Your task to perform on an android device: turn smart compose on in the gmail app Image 0: 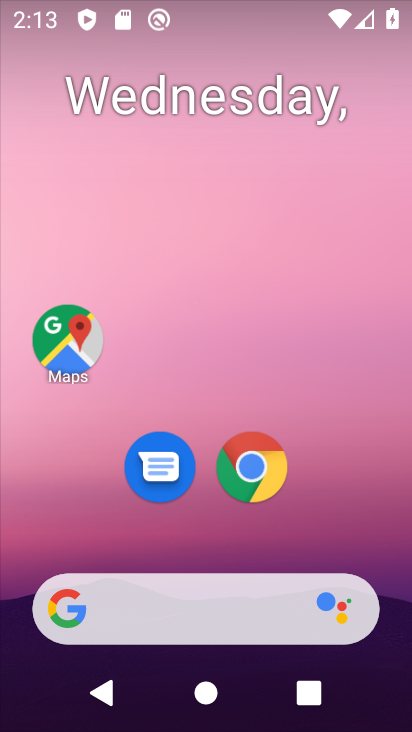
Step 0: press home button
Your task to perform on an android device: turn smart compose on in the gmail app Image 1: 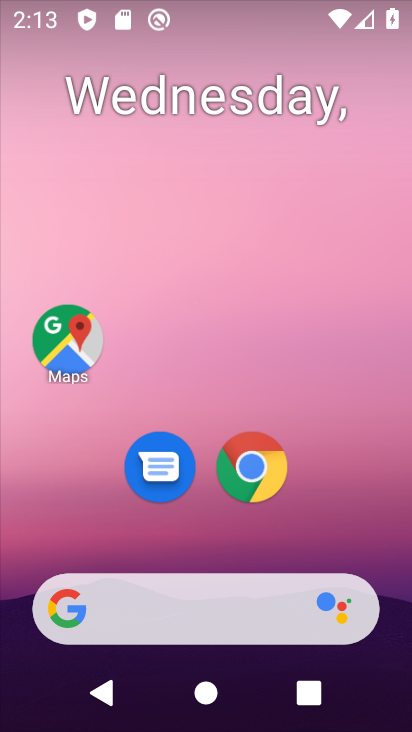
Step 1: drag from (200, 618) to (296, 117)
Your task to perform on an android device: turn smart compose on in the gmail app Image 2: 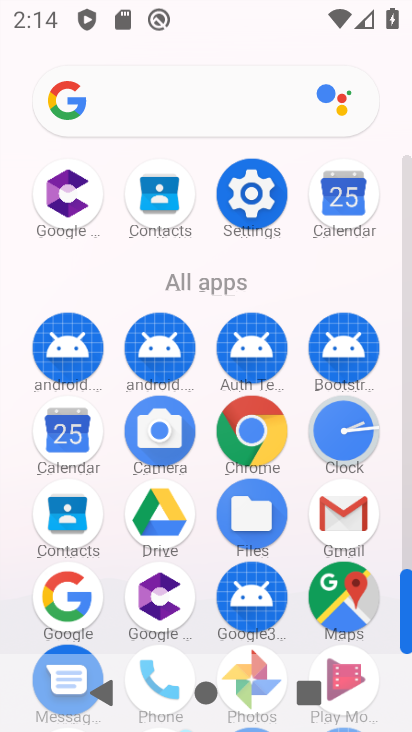
Step 2: click (349, 521)
Your task to perform on an android device: turn smart compose on in the gmail app Image 3: 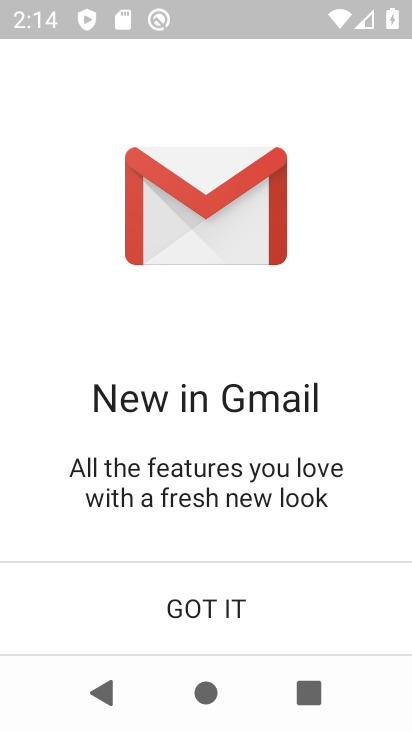
Step 3: click (239, 609)
Your task to perform on an android device: turn smart compose on in the gmail app Image 4: 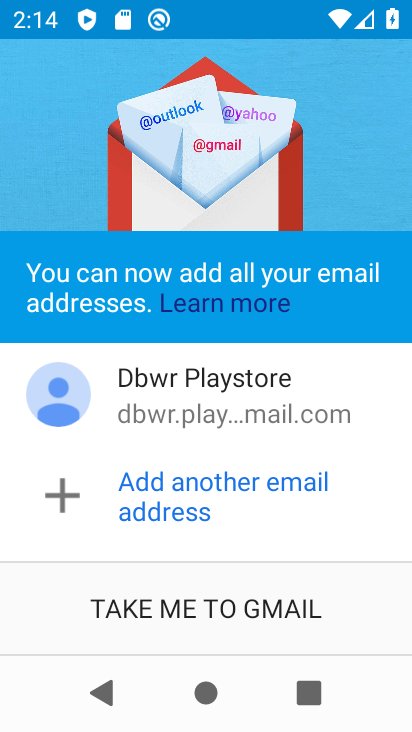
Step 4: click (239, 609)
Your task to perform on an android device: turn smart compose on in the gmail app Image 5: 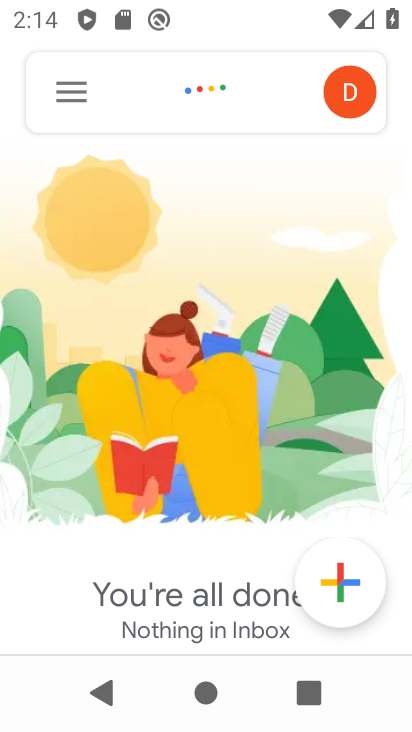
Step 5: click (67, 95)
Your task to perform on an android device: turn smart compose on in the gmail app Image 6: 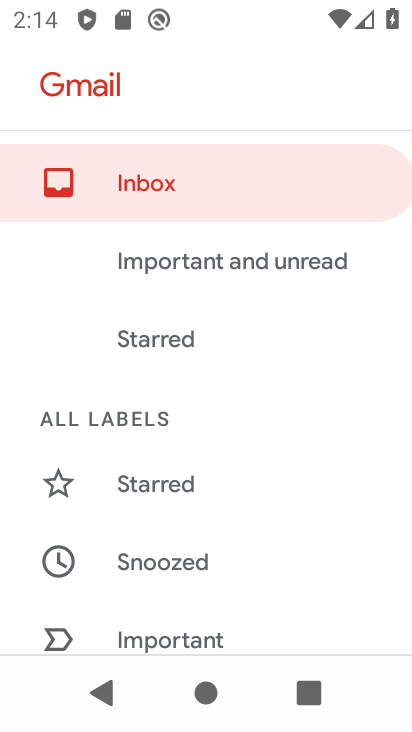
Step 6: drag from (245, 632) to (322, 136)
Your task to perform on an android device: turn smart compose on in the gmail app Image 7: 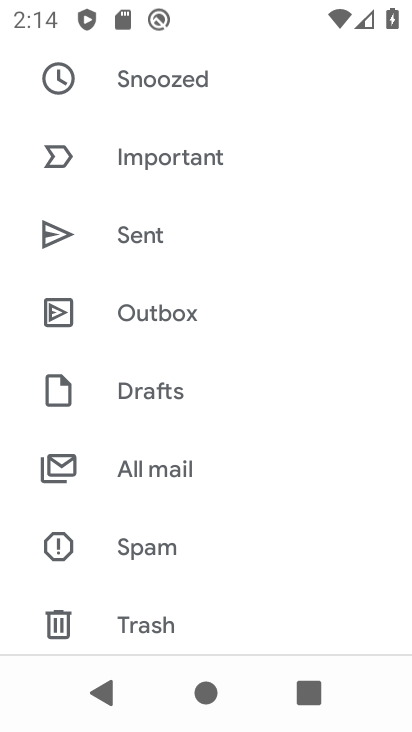
Step 7: drag from (238, 616) to (298, 257)
Your task to perform on an android device: turn smart compose on in the gmail app Image 8: 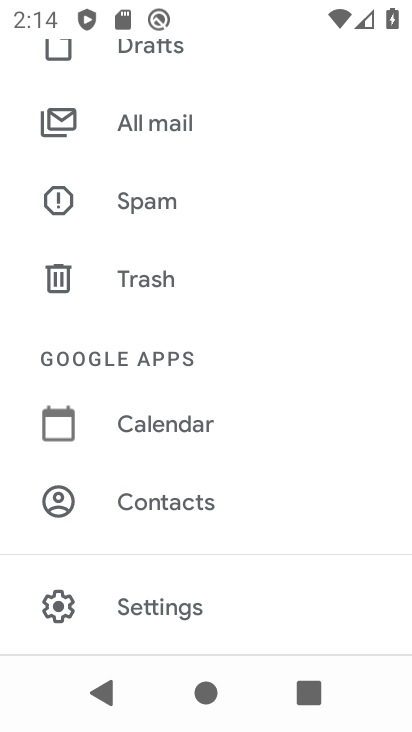
Step 8: click (195, 606)
Your task to perform on an android device: turn smart compose on in the gmail app Image 9: 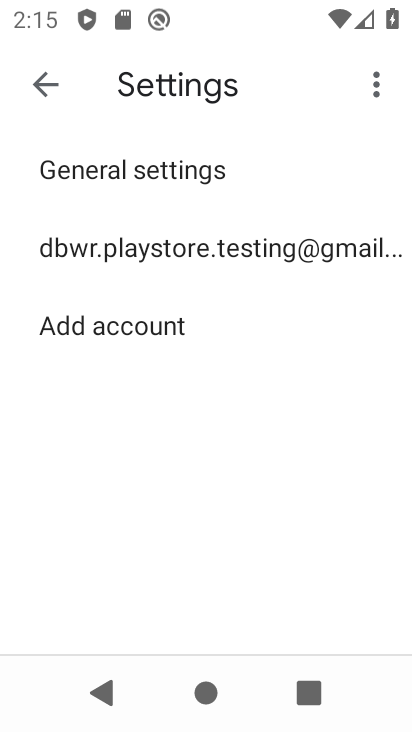
Step 9: click (274, 253)
Your task to perform on an android device: turn smart compose on in the gmail app Image 10: 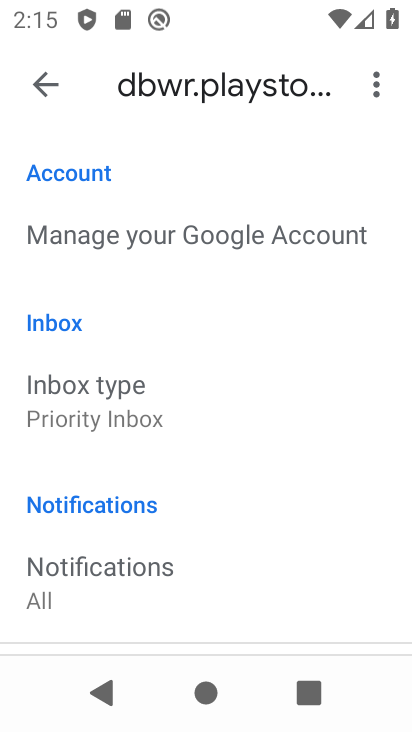
Step 10: task complete